Your task to perform on an android device: Go to eBay Image 0: 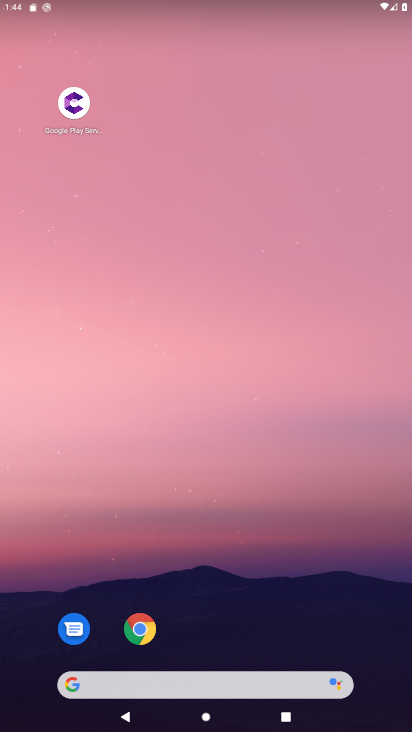
Step 0: click (133, 628)
Your task to perform on an android device: Go to eBay Image 1: 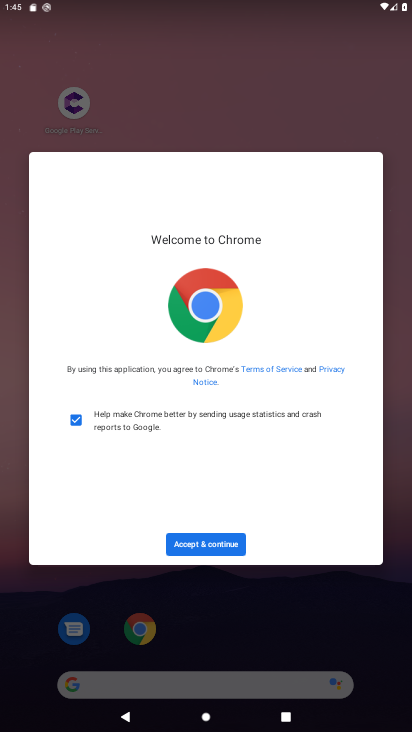
Step 1: click (225, 540)
Your task to perform on an android device: Go to eBay Image 2: 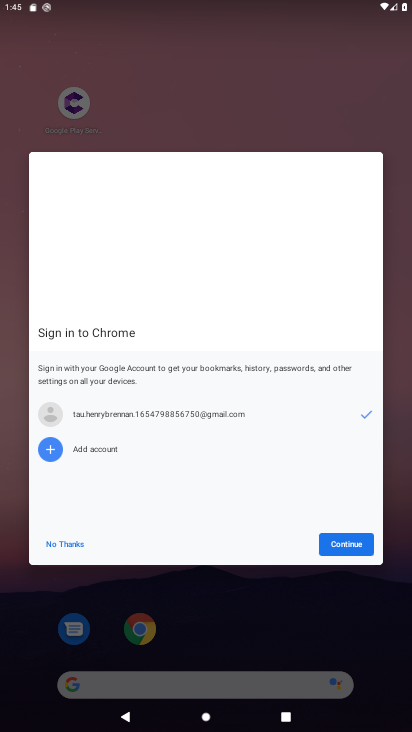
Step 2: click (354, 539)
Your task to perform on an android device: Go to eBay Image 3: 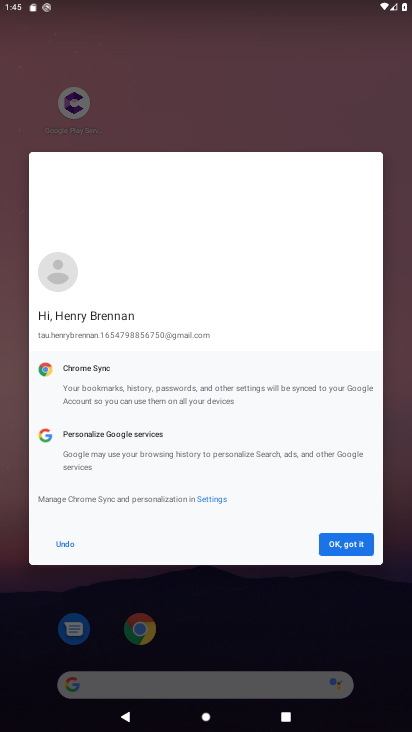
Step 3: click (361, 539)
Your task to perform on an android device: Go to eBay Image 4: 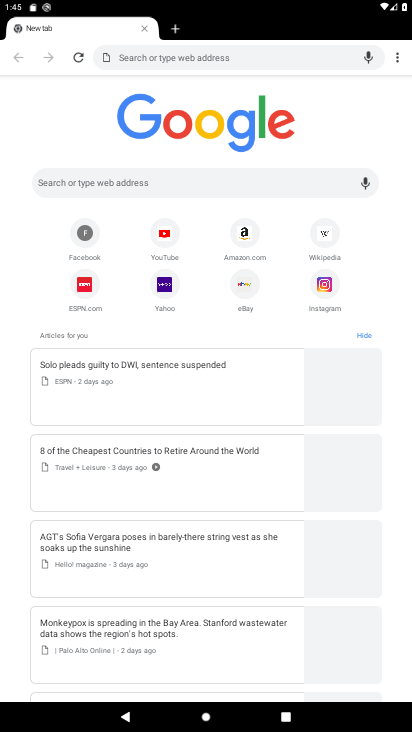
Step 4: click (242, 282)
Your task to perform on an android device: Go to eBay Image 5: 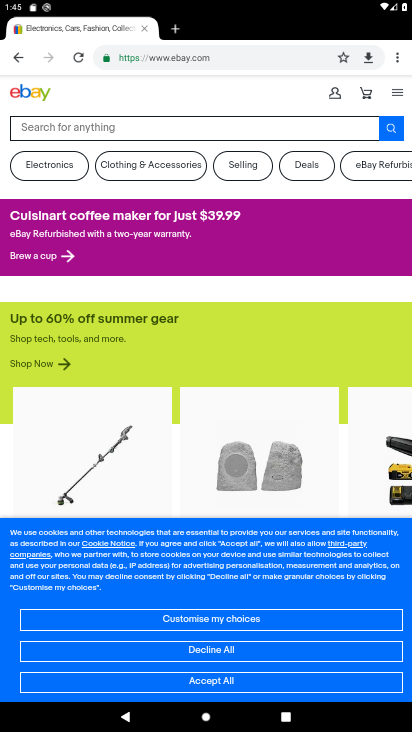
Step 5: task complete